Your task to perform on an android device: move a message to another label in the gmail app Image 0: 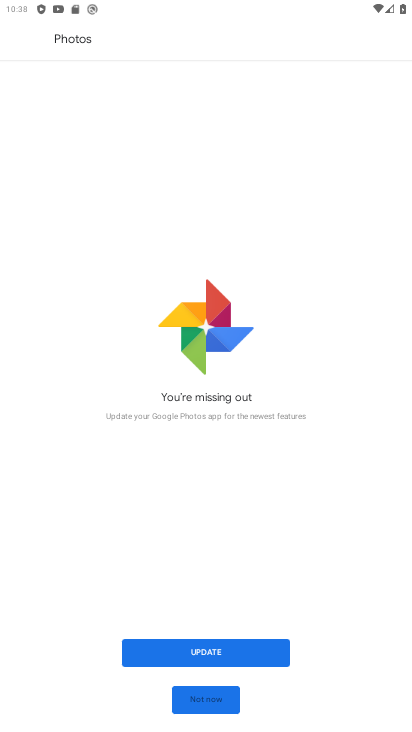
Step 0: press home button
Your task to perform on an android device: move a message to another label in the gmail app Image 1: 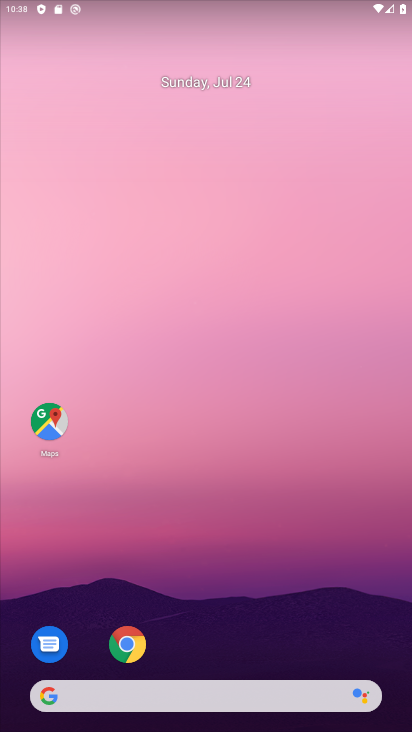
Step 1: drag from (249, 657) to (271, 14)
Your task to perform on an android device: move a message to another label in the gmail app Image 2: 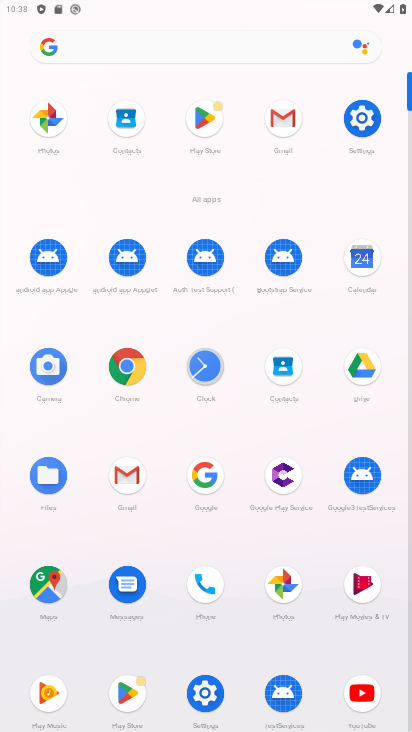
Step 2: click (279, 123)
Your task to perform on an android device: move a message to another label in the gmail app Image 3: 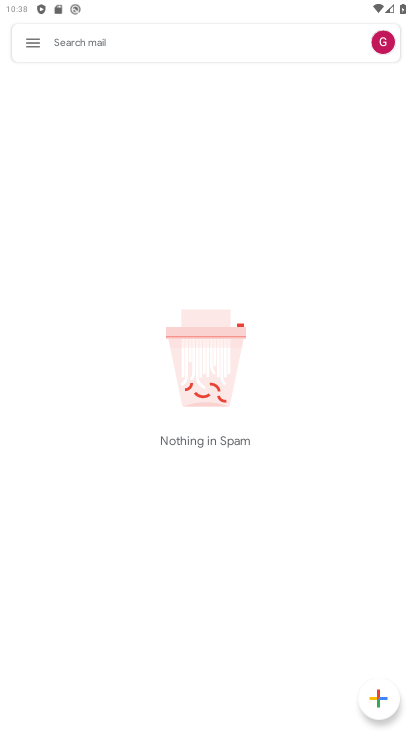
Step 3: click (34, 48)
Your task to perform on an android device: move a message to another label in the gmail app Image 4: 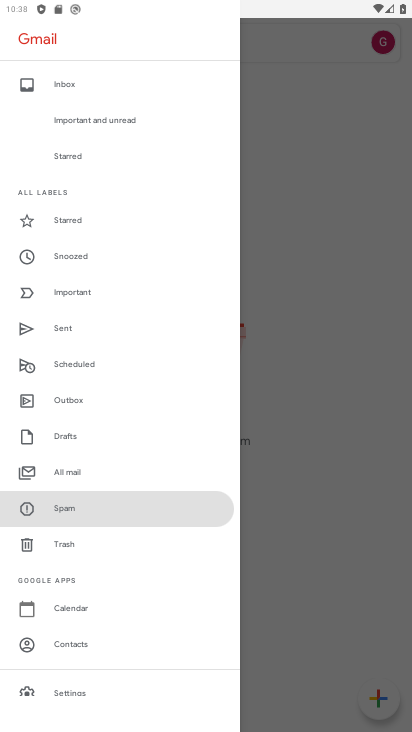
Step 4: click (75, 476)
Your task to perform on an android device: move a message to another label in the gmail app Image 5: 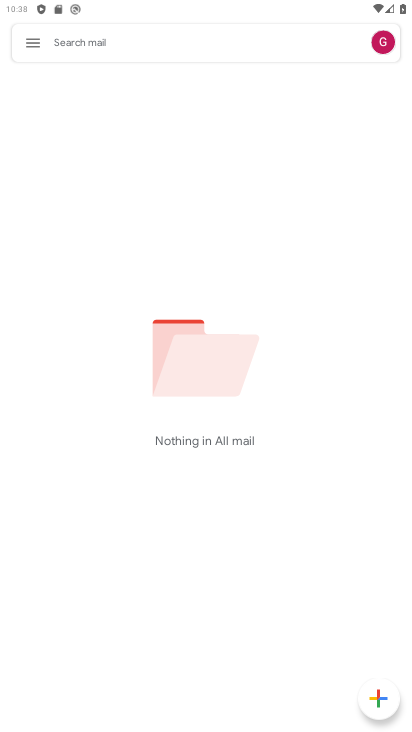
Step 5: task complete